Your task to perform on an android device: Show me the alarms in the clock app Image 0: 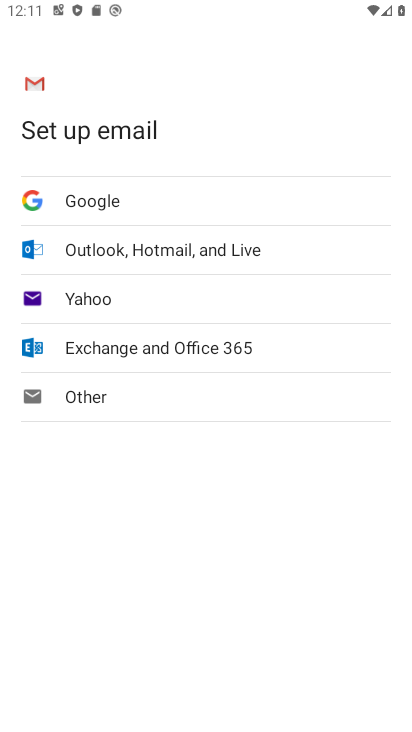
Step 0: press home button
Your task to perform on an android device: Show me the alarms in the clock app Image 1: 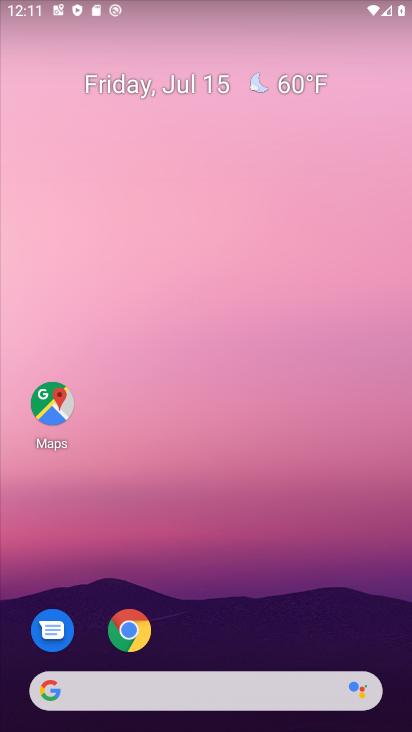
Step 1: drag from (27, 676) to (256, 90)
Your task to perform on an android device: Show me the alarms in the clock app Image 2: 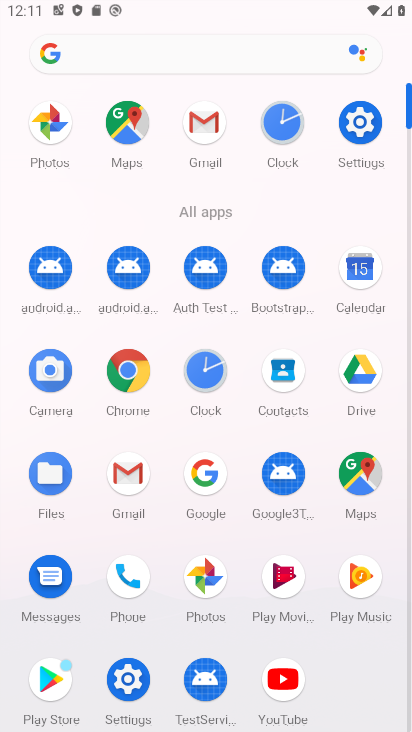
Step 2: click (219, 387)
Your task to perform on an android device: Show me the alarms in the clock app Image 3: 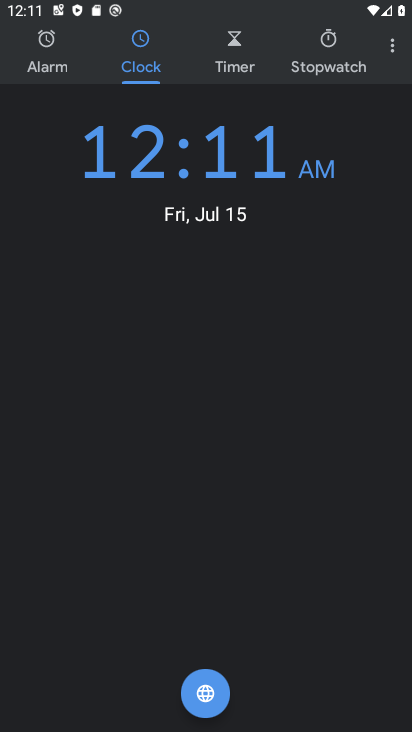
Step 3: click (33, 53)
Your task to perform on an android device: Show me the alarms in the clock app Image 4: 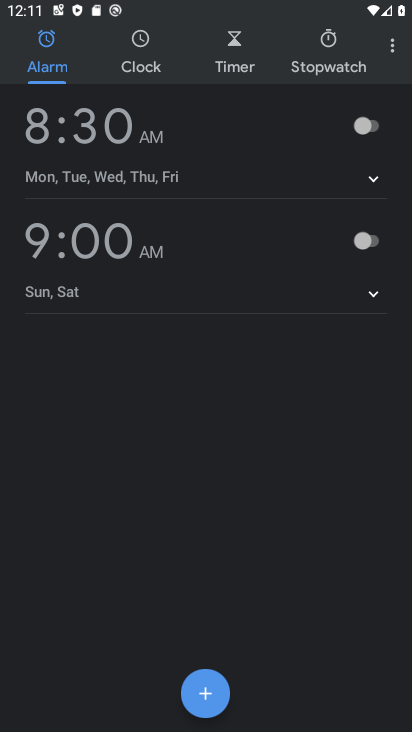
Step 4: task complete